Your task to perform on an android device: change keyboard looks Image 0: 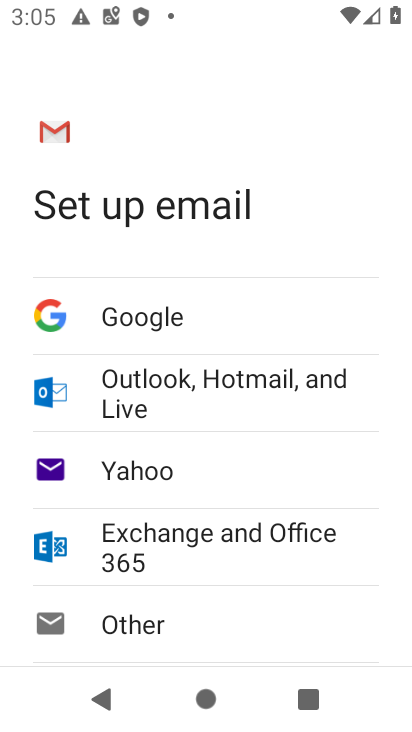
Step 0: press home button
Your task to perform on an android device: change keyboard looks Image 1: 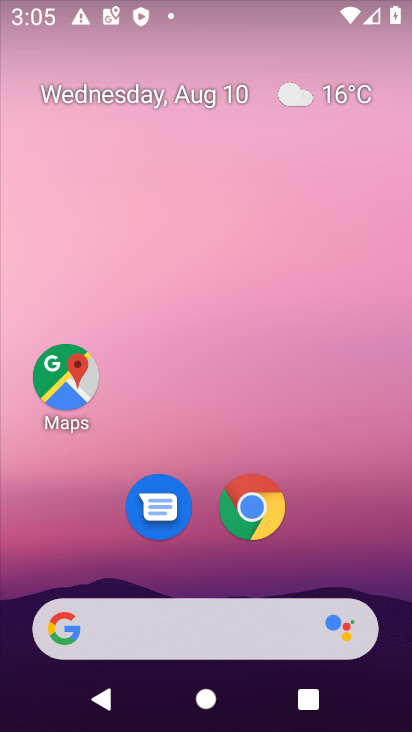
Step 1: drag from (279, 38) to (245, 0)
Your task to perform on an android device: change keyboard looks Image 2: 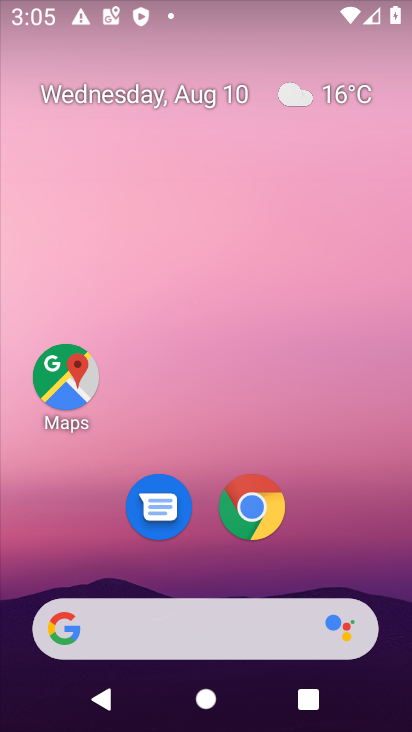
Step 2: drag from (358, 476) to (315, 0)
Your task to perform on an android device: change keyboard looks Image 3: 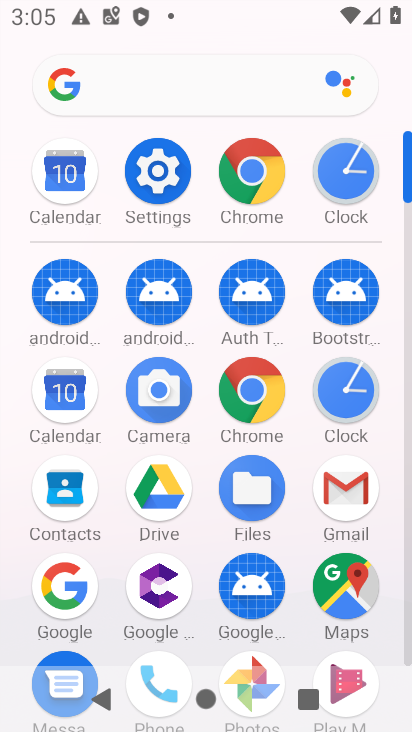
Step 3: click (163, 170)
Your task to perform on an android device: change keyboard looks Image 4: 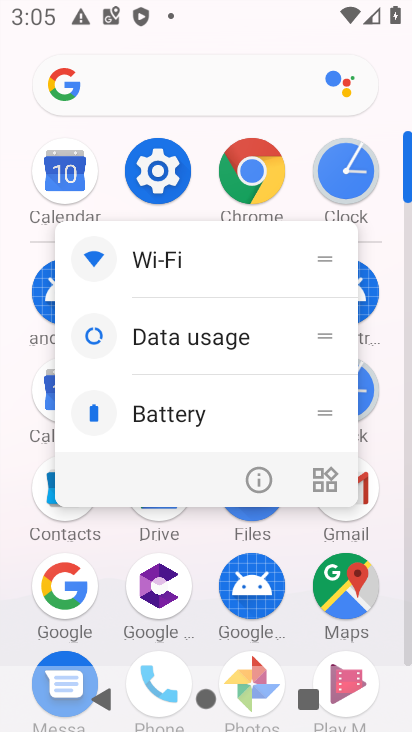
Step 4: click (139, 173)
Your task to perform on an android device: change keyboard looks Image 5: 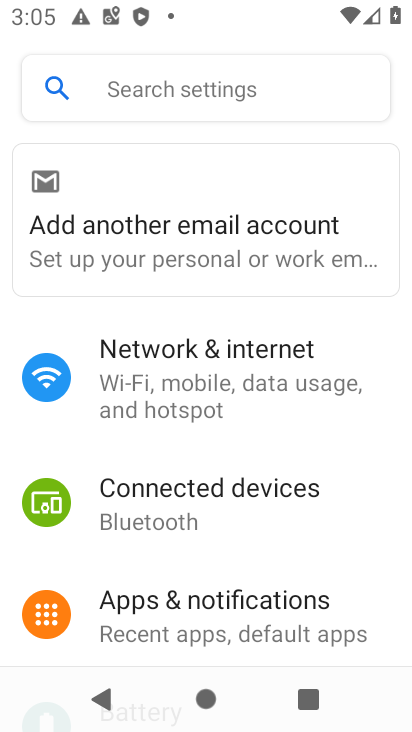
Step 5: drag from (285, 575) to (278, 92)
Your task to perform on an android device: change keyboard looks Image 6: 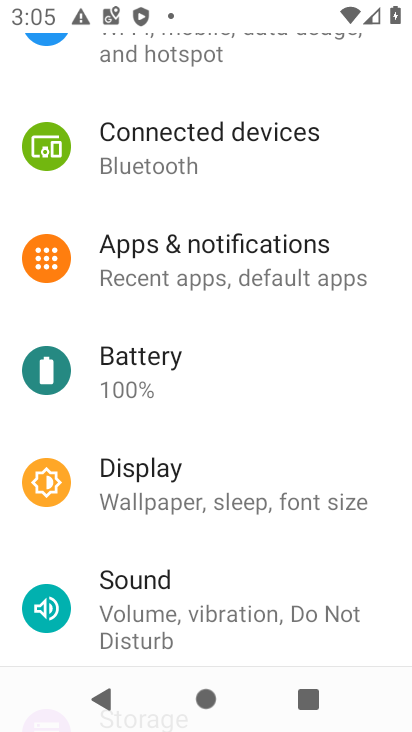
Step 6: drag from (263, 437) to (268, 22)
Your task to perform on an android device: change keyboard looks Image 7: 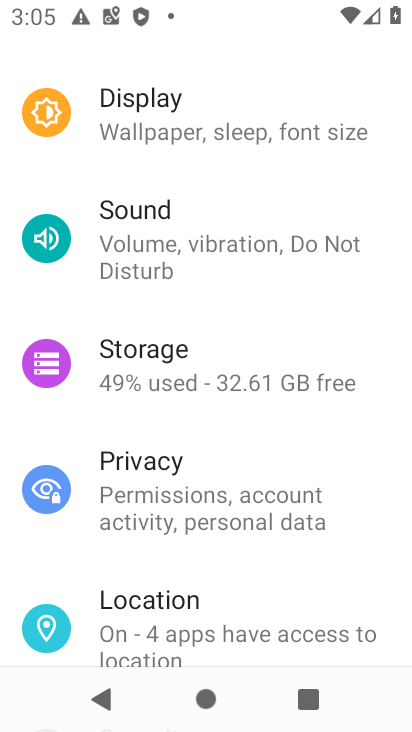
Step 7: drag from (250, 514) to (268, 72)
Your task to perform on an android device: change keyboard looks Image 8: 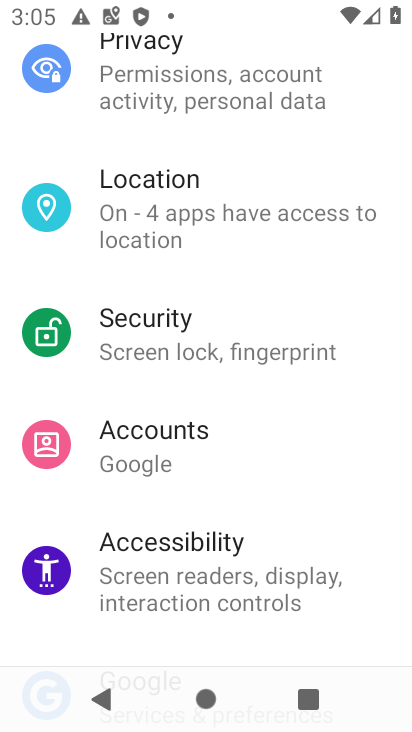
Step 8: drag from (300, 465) to (283, 80)
Your task to perform on an android device: change keyboard looks Image 9: 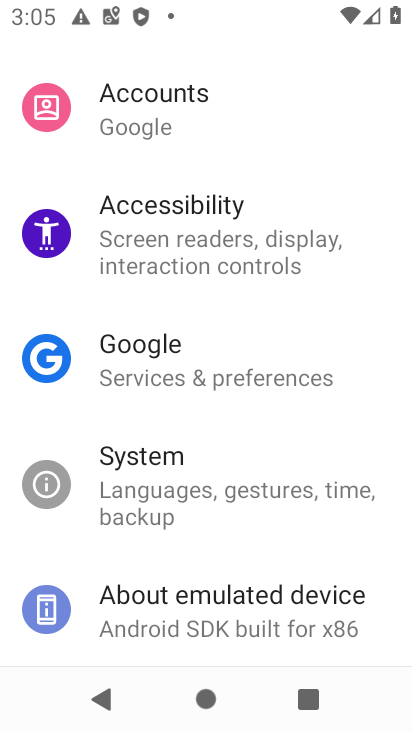
Step 9: click (232, 496)
Your task to perform on an android device: change keyboard looks Image 10: 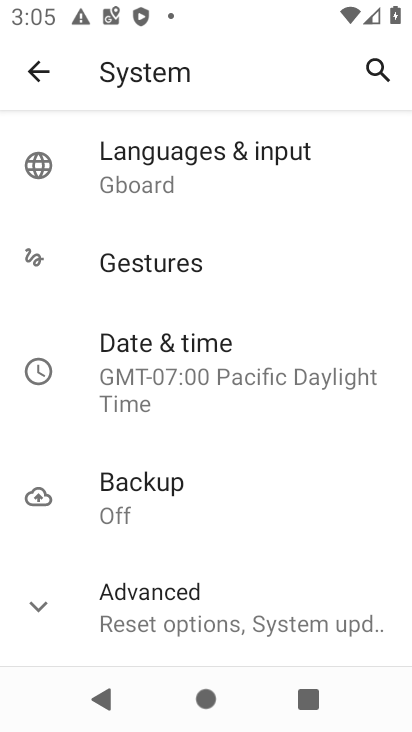
Step 10: click (204, 168)
Your task to perform on an android device: change keyboard looks Image 11: 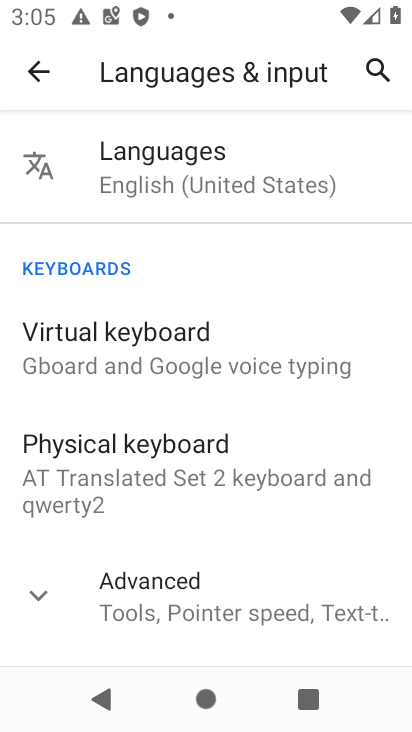
Step 11: click (157, 343)
Your task to perform on an android device: change keyboard looks Image 12: 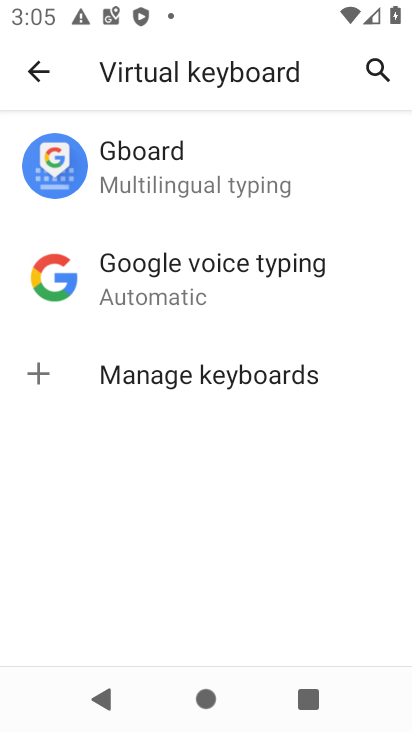
Step 12: click (196, 180)
Your task to perform on an android device: change keyboard looks Image 13: 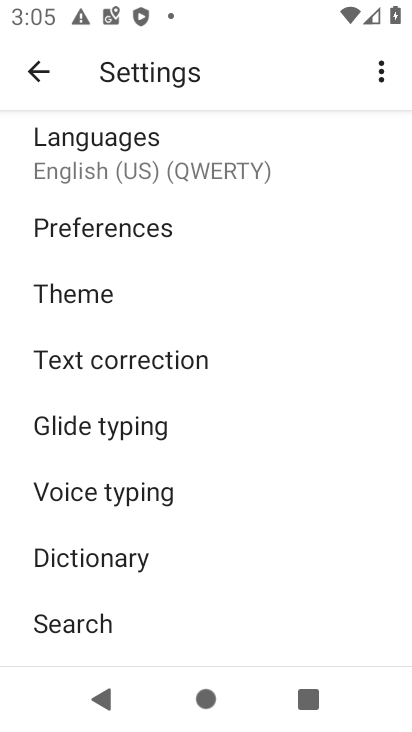
Step 13: click (102, 280)
Your task to perform on an android device: change keyboard looks Image 14: 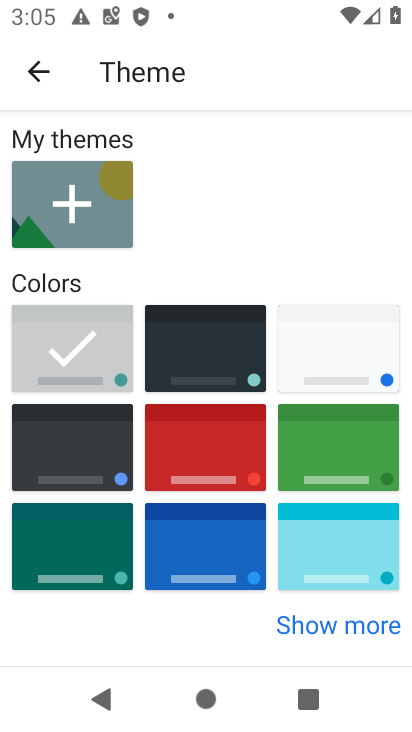
Step 14: click (326, 353)
Your task to perform on an android device: change keyboard looks Image 15: 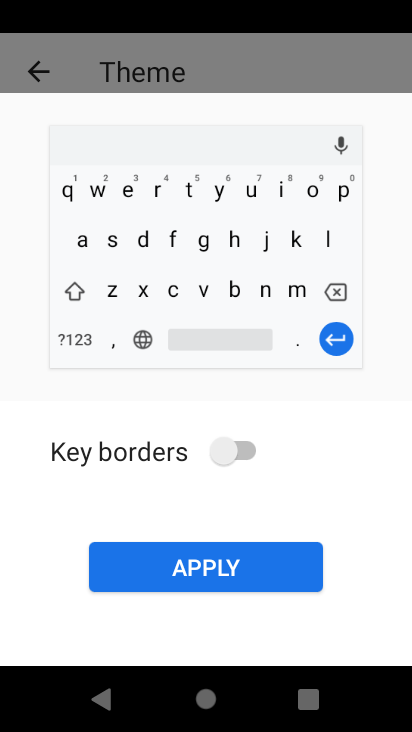
Step 15: click (234, 557)
Your task to perform on an android device: change keyboard looks Image 16: 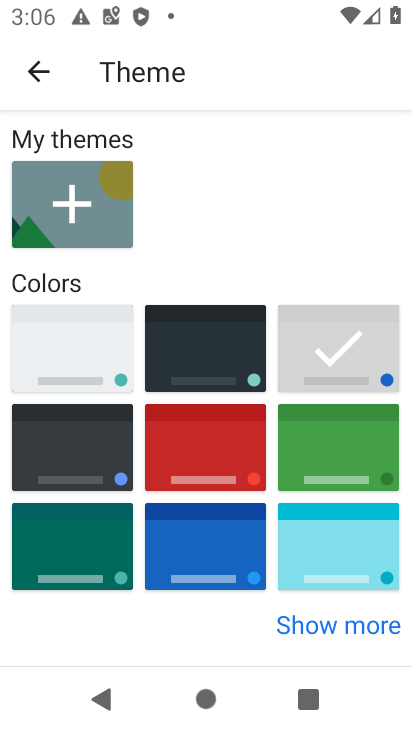
Step 16: task complete